Your task to perform on an android device: Go to display settings Image 0: 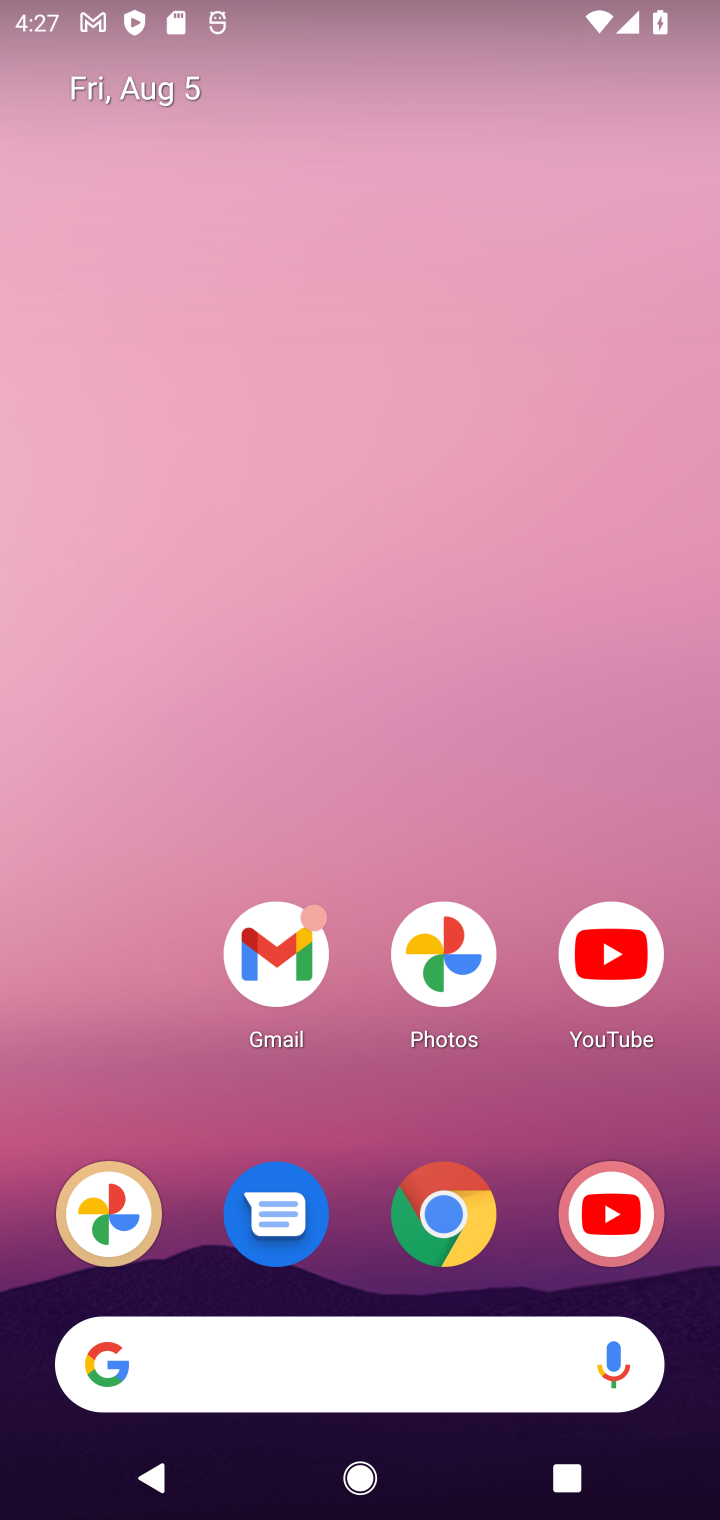
Step 0: drag from (150, 1035) to (349, 108)
Your task to perform on an android device: Go to display settings Image 1: 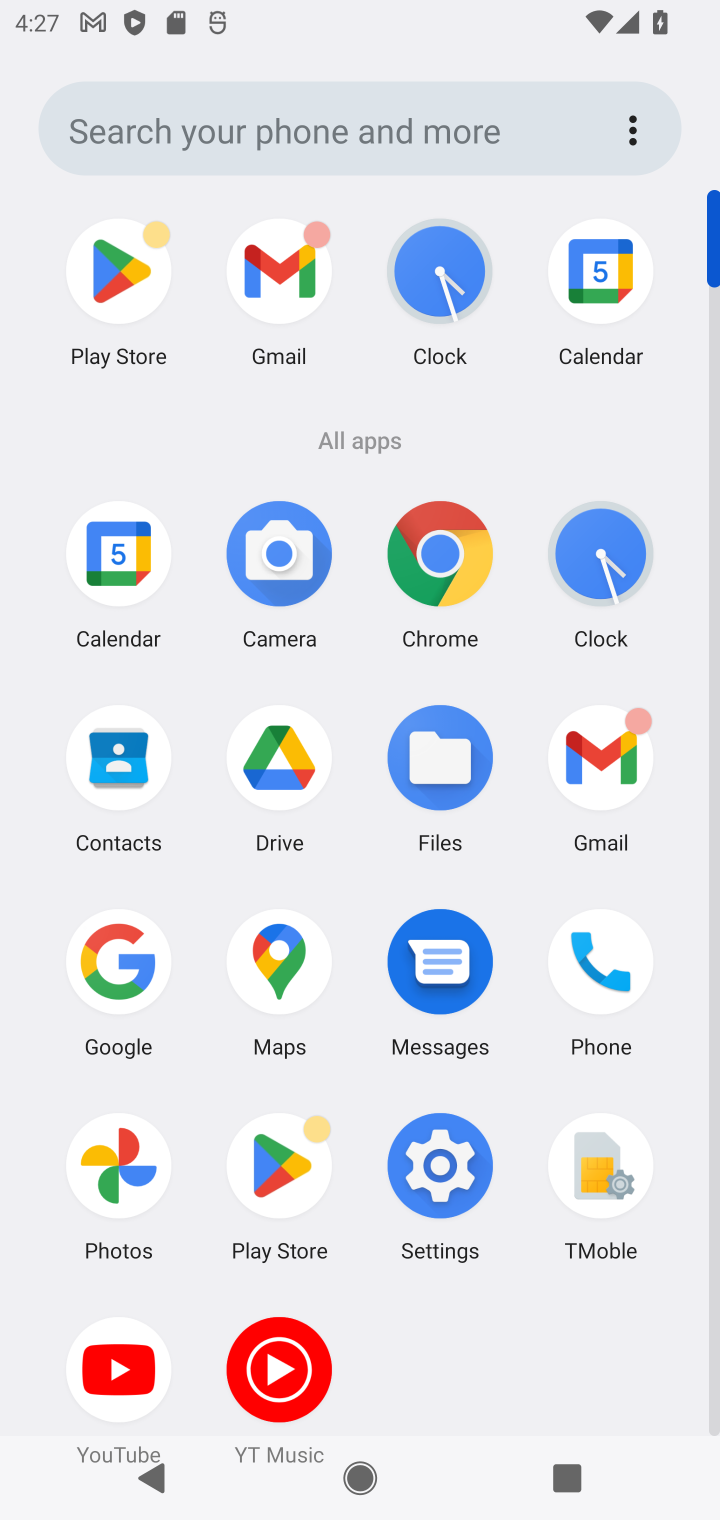
Step 1: click (434, 1159)
Your task to perform on an android device: Go to display settings Image 2: 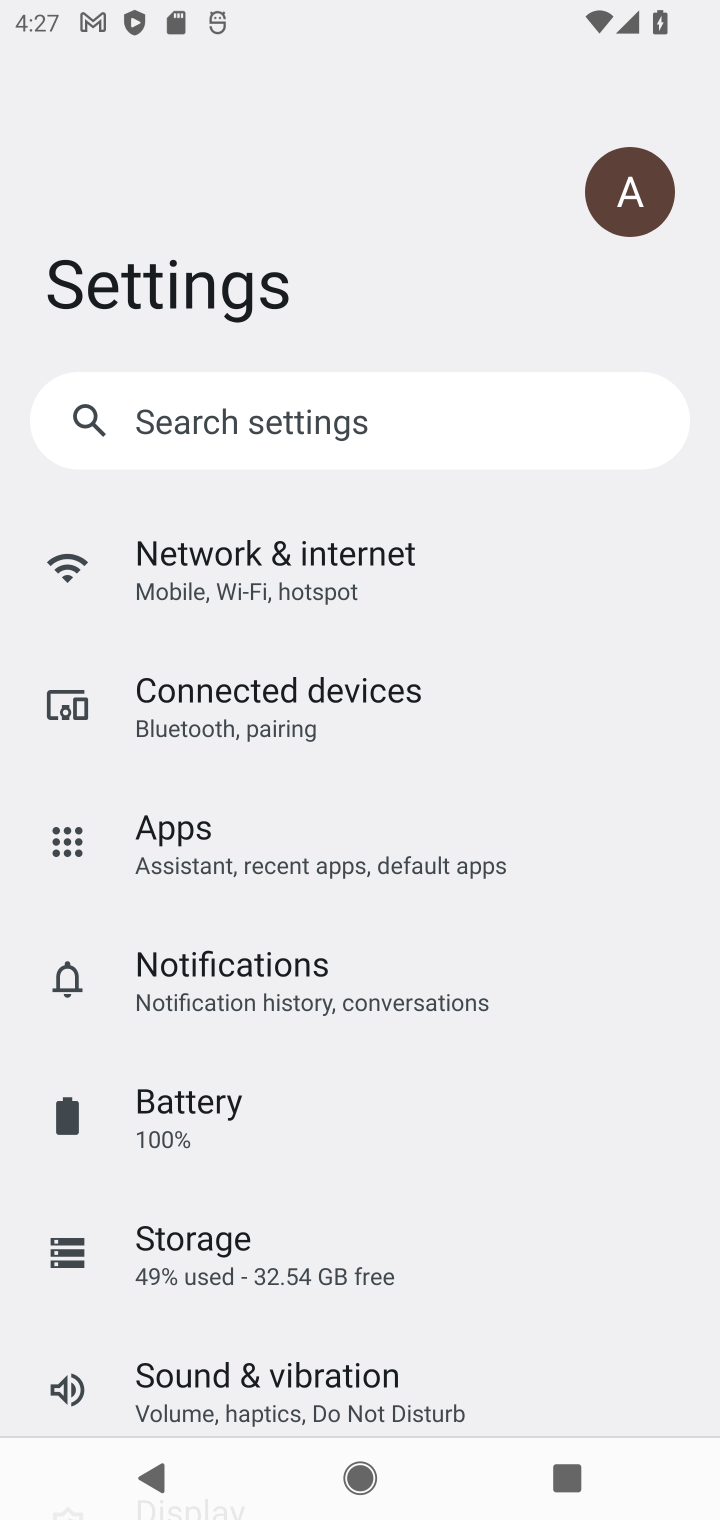
Step 2: drag from (431, 1116) to (441, 391)
Your task to perform on an android device: Go to display settings Image 3: 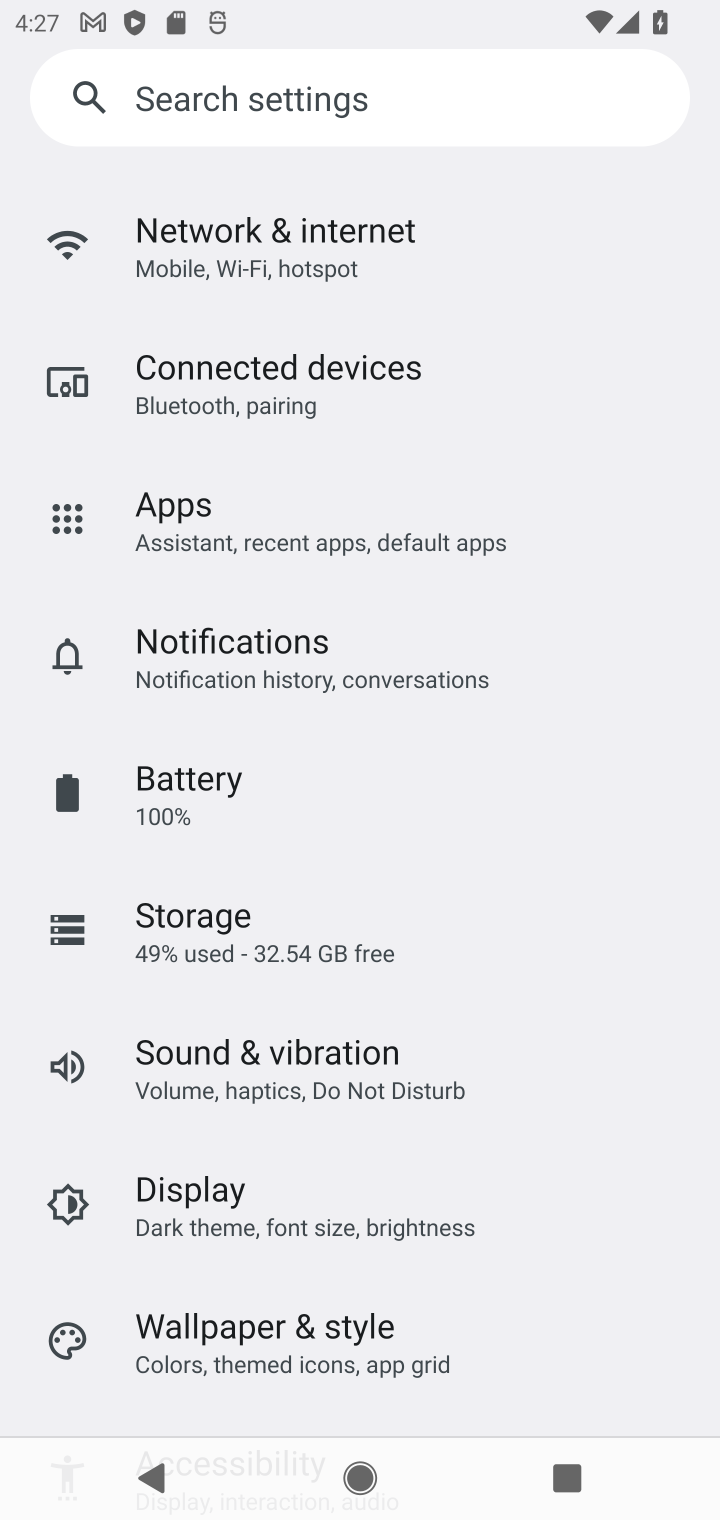
Step 3: click (286, 1207)
Your task to perform on an android device: Go to display settings Image 4: 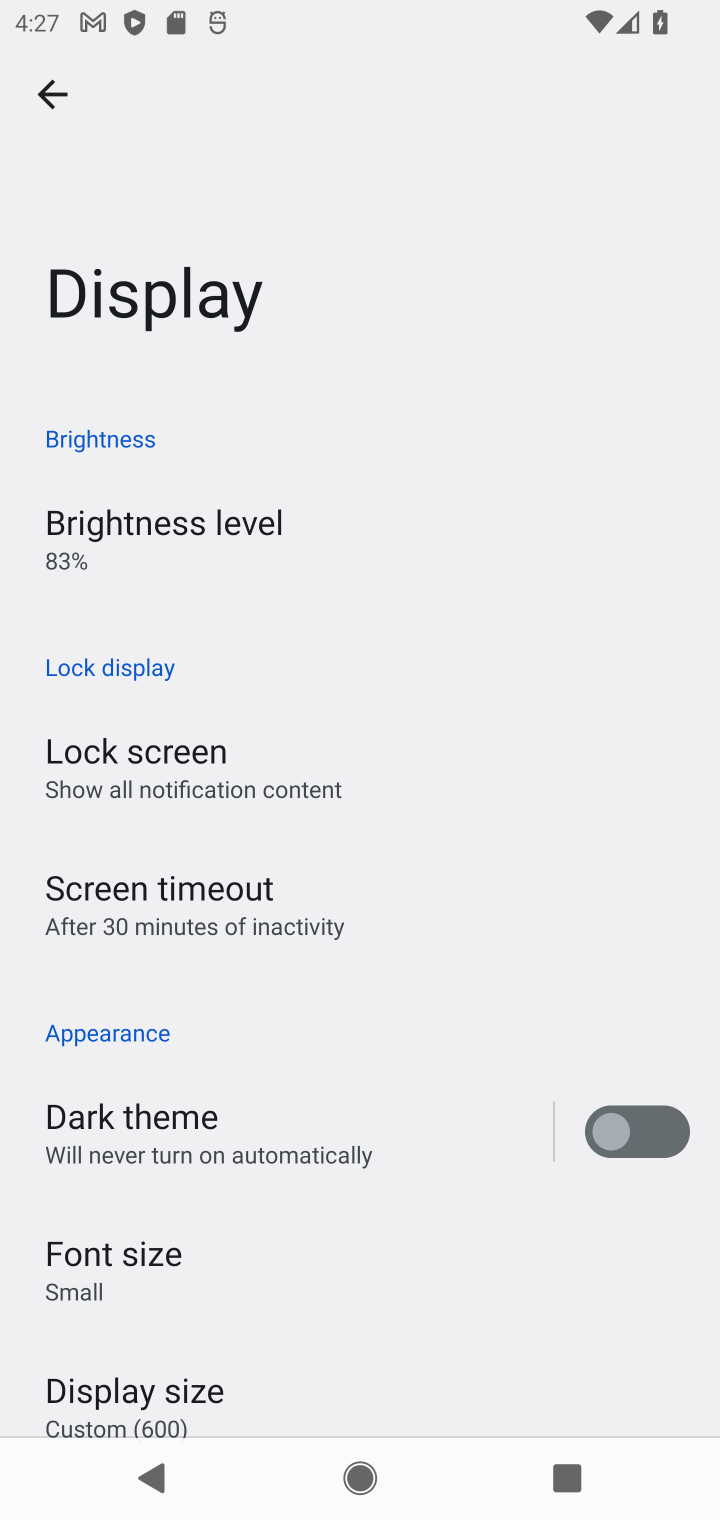
Step 4: task complete